Your task to perform on an android device: open the mobile data screen to see how much data has been used Image 0: 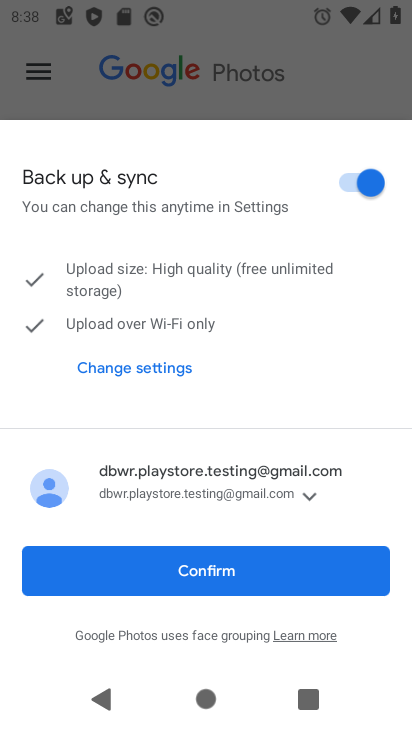
Step 0: press home button
Your task to perform on an android device: open the mobile data screen to see how much data has been used Image 1: 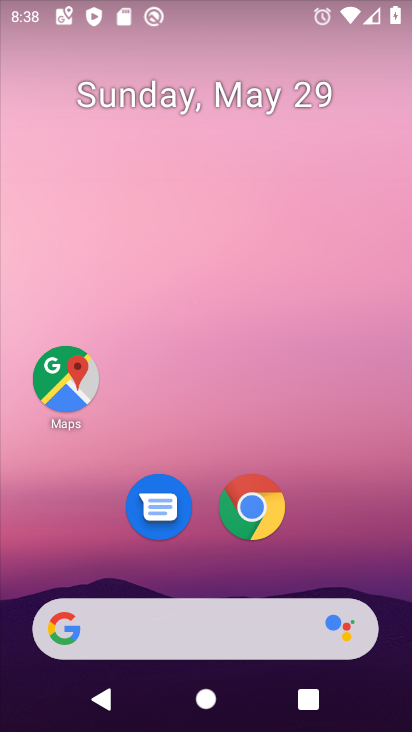
Step 1: drag from (88, 608) to (202, 129)
Your task to perform on an android device: open the mobile data screen to see how much data has been used Image 2: 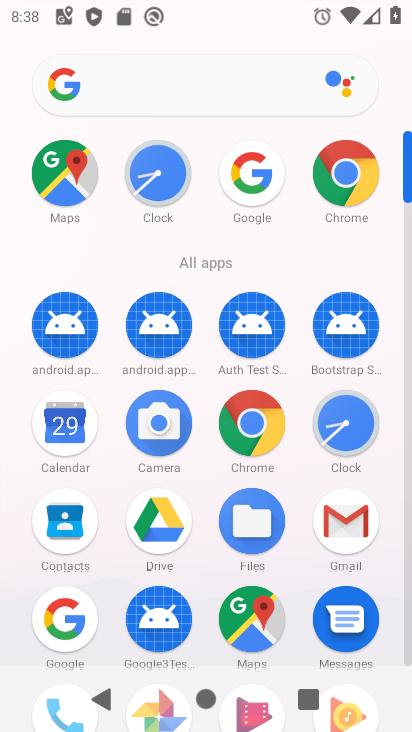
Step 2: drag from (154, 597) to (213, 274)
Your task to perform on an android device: open the mobile data screen to see how much data has been used Image 3: 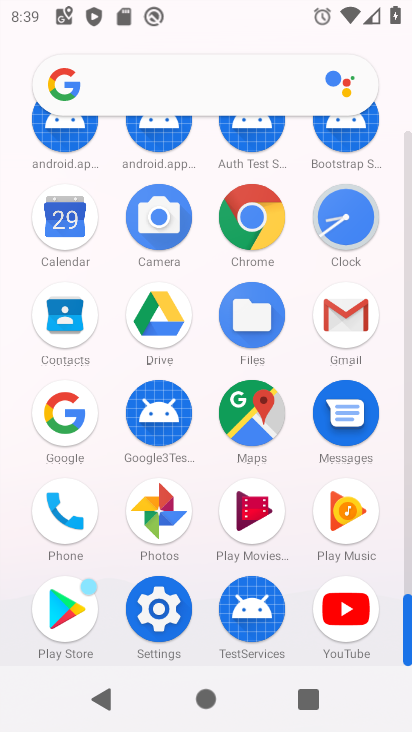
Step 3: click (158, 620)
Your task to perform on an android device: open the mobile data screen to see how much data has been used Image 4: 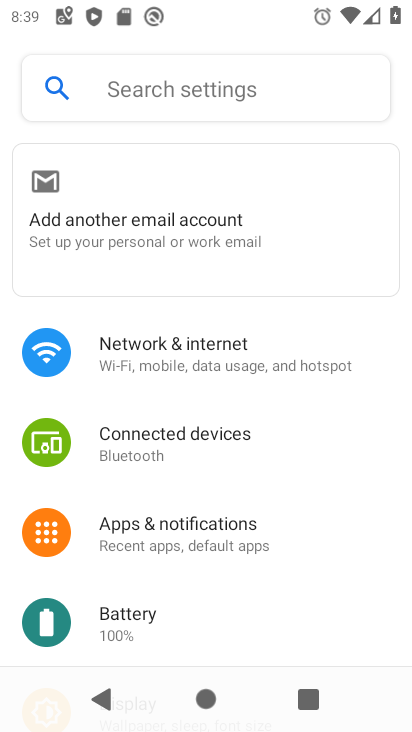
Step 4: click (256, 355)
Your task to perform on an android device: open the mobile data screen to see how much data has been used Image 5: 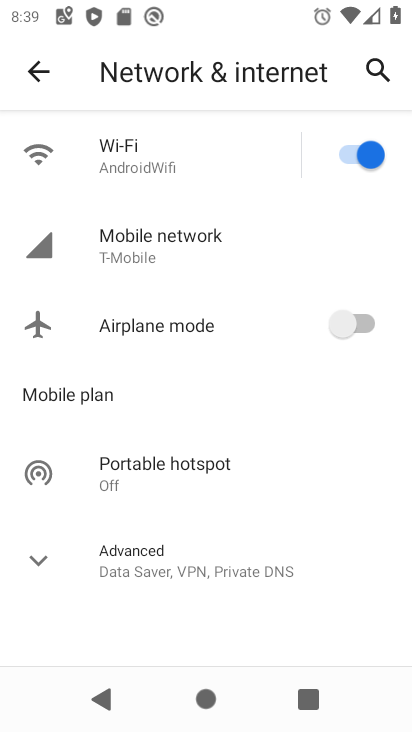
Step 5: click (222, 257)
Your task to perform on an android device: open the mobile data screen to see how much data has been used Image 6: 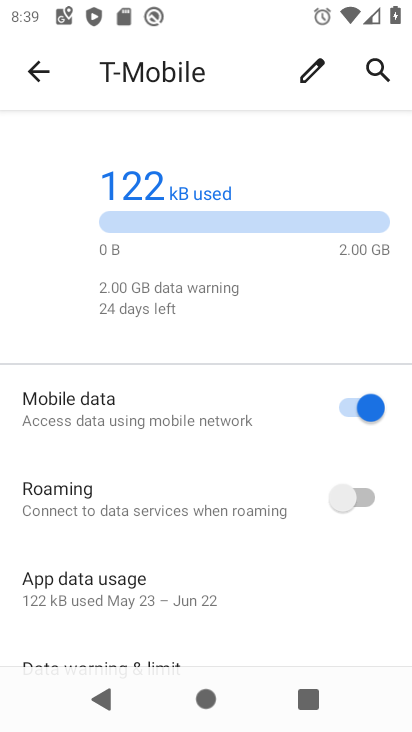
Step 6: task complete